Your task to perform on an android device: Open Chrome and go to the settings page Image 0: 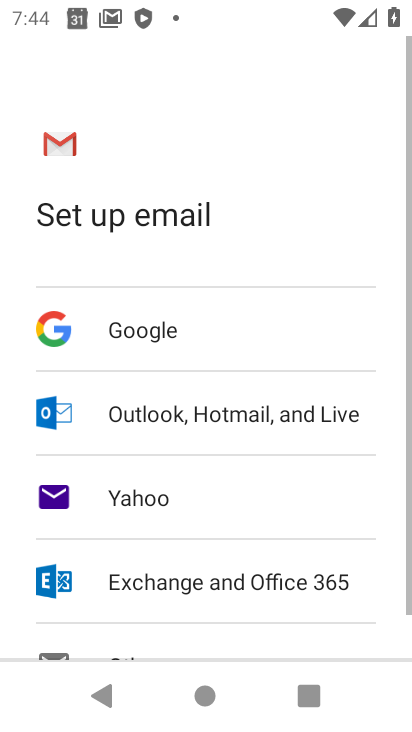
Step 0: press home button
Your task to perform on an android device: Open Chrome and go to the settings page Image 1: 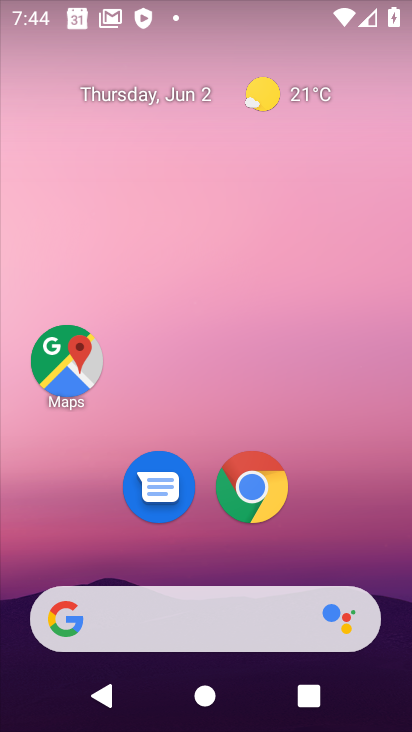
Step 1: drag from (220, 265) to (375, 1)
Your task to perform on an android device: Open Chrome and go to the settings page Image 2: 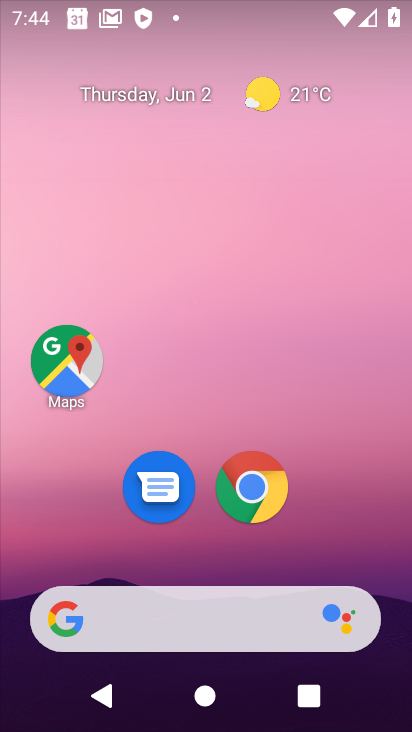
Step 2: drag from (203, 244) to (214, 54)
Your task to perform on an android device: Open Chrome and go to the settings page Image 3: 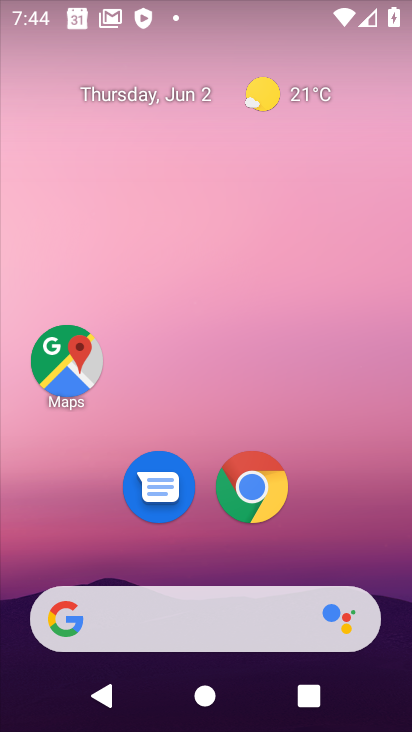
Step 3: drag from (161, 575) to (180, 153)
Your task to perform on an android device: Open Chrome and go to the settings page Image 4: 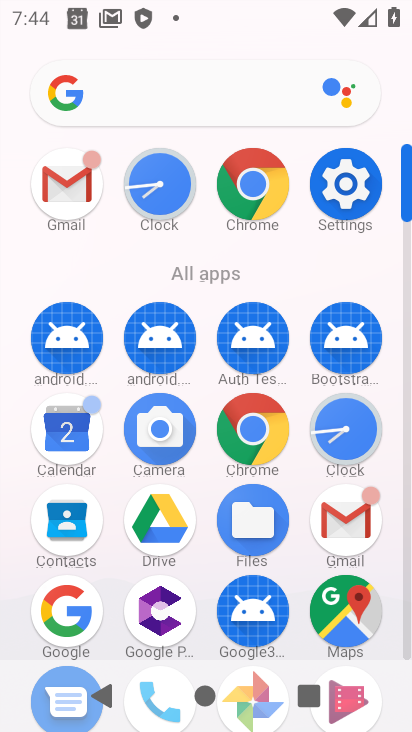
Step 4: click (256, 180)
Your task to perform on an android device: Open Chrome and go to the settings page Image 5: 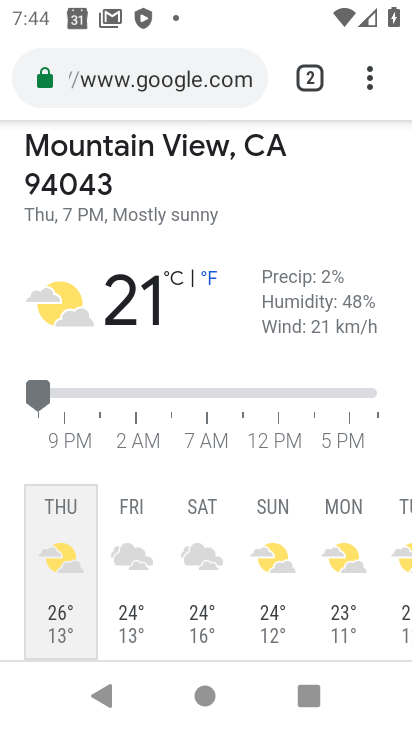
Step 5: click (373, 81)
Your task to perform on an android device: Open Chrome and go to the settings page Image 6: 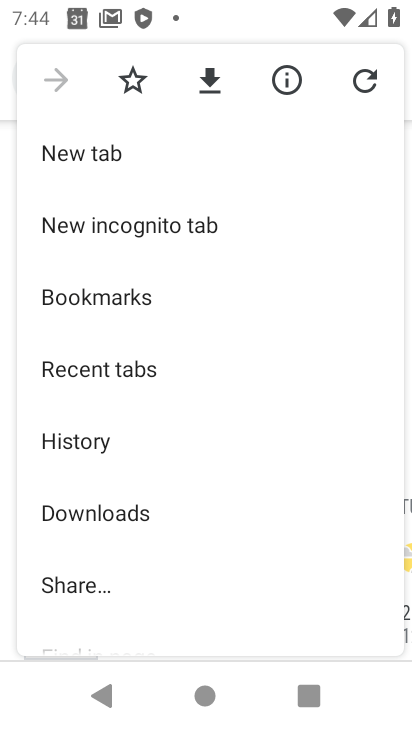
Step 6: drag from (169, 544) to (180, 6)
Your task to perform on an android device: Open Chrome and go to the settings page Image 7: 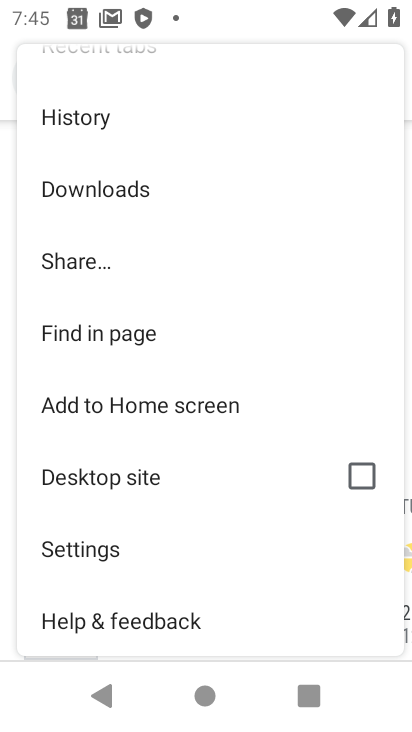
Step 7: click (102, 553)
Your task to perform on an android device: Open Chrome and go to the settings page Image 8: 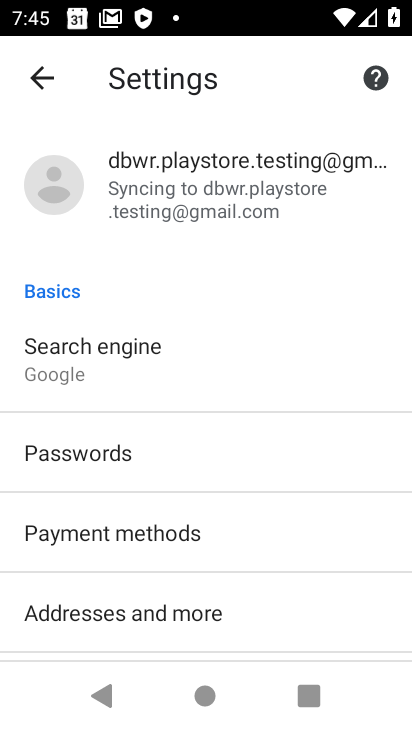
Step 8: task complete